Your task to perform on an android device: toggle wifi Image 0: 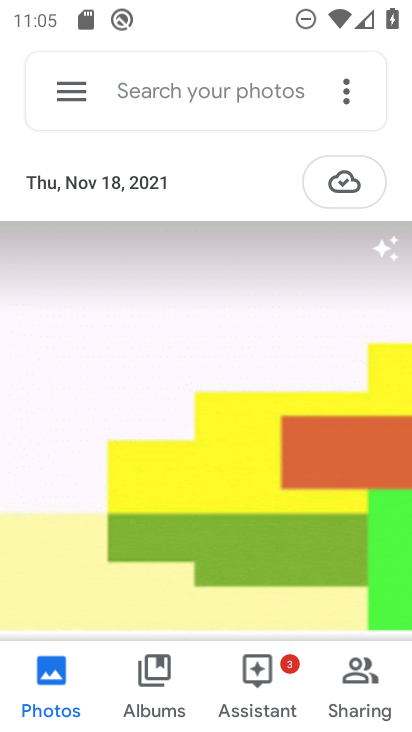
Step 0: press home button
Your task to perform on an android device: toggle wifi Image 1: 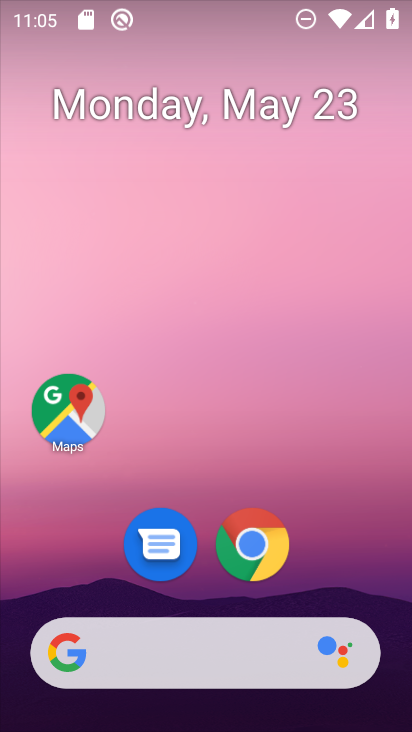
Step 1: drag from (386, 597) to (315, 102)
Your task to perform on an android device: toggle wifi Image 2: 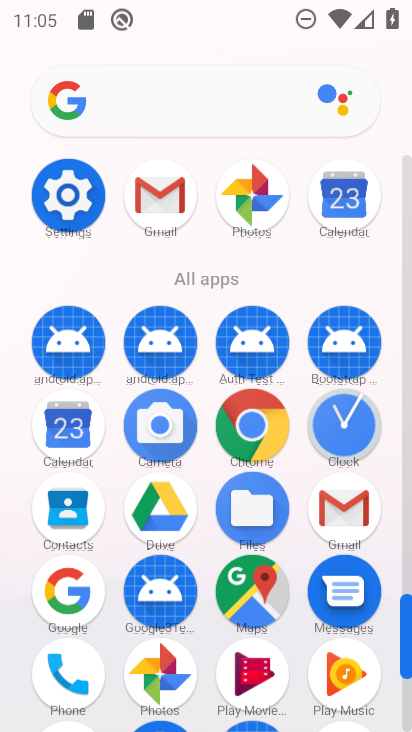
Step 2: click (61, 188)
Your task to perform on an android device: toggle wifi Image 3: 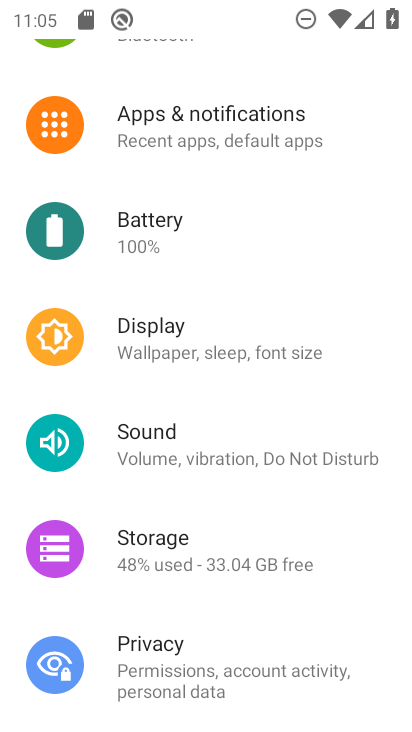
Step 3: drag from (309, 177) to (323, 417)
Your task to perform on an android device: toggle wifi Image 4: 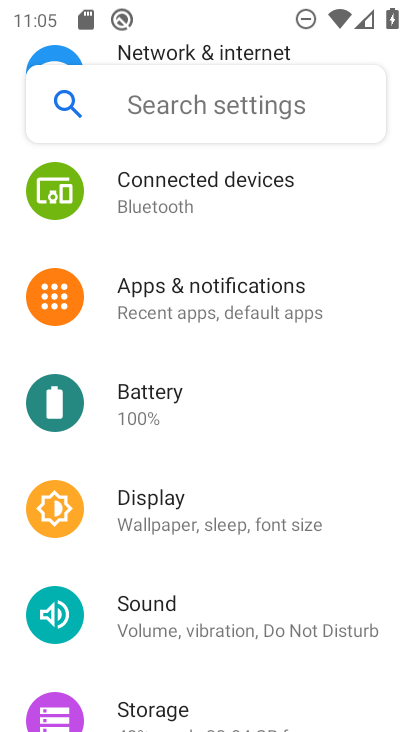
Step 4: drag from (317, 229) to (302, 501)
Your task to perform on an android device: toggle wifi Image 5: 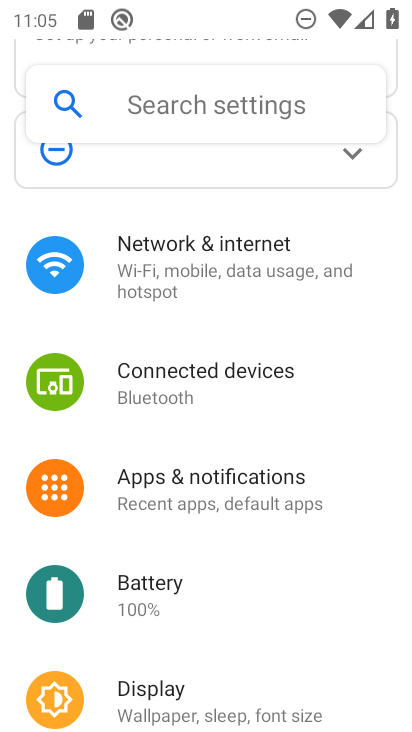
Step 5: click (156, 265)
Your task to perform on an android device: toggle wifi Image 6: 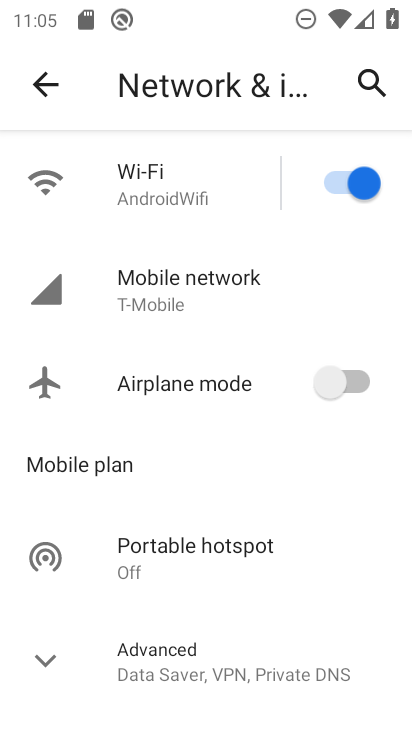
Step 6: click (322, 180)
Your task to perform on an android device: toggle wifi Image 7: 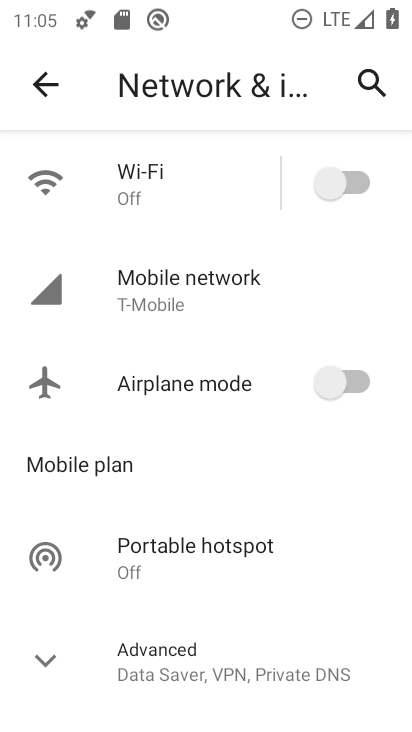
Step 7: task complete